Your task to perform on an android device: add a label to a message in the gmail app Image 0: 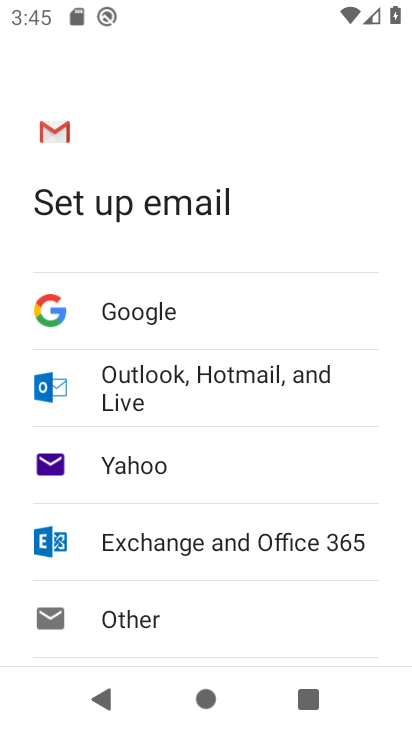
Step 0: press home button
Your task to perform on an android device: add a label to a message in the gmail app Image 1: 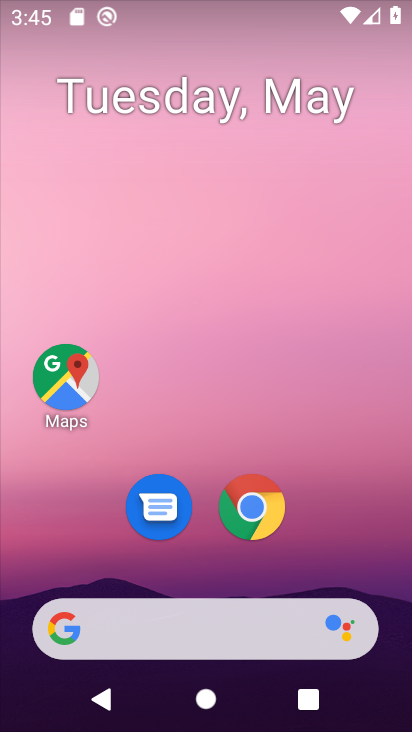
Step 1: drag from (199, 568) to (212, 86)
Your task to perform on an android device: add a label to a message in the gmail app Image 2: 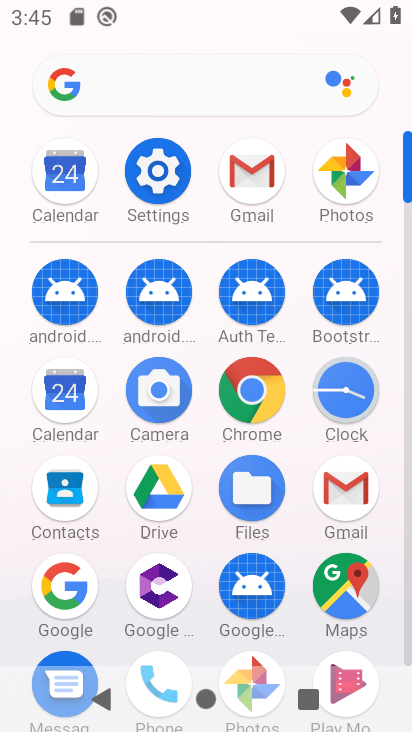
Step 2: click (241, 179)
Your task to perform on an android device: add a label to a message in the gmail app Image 3: 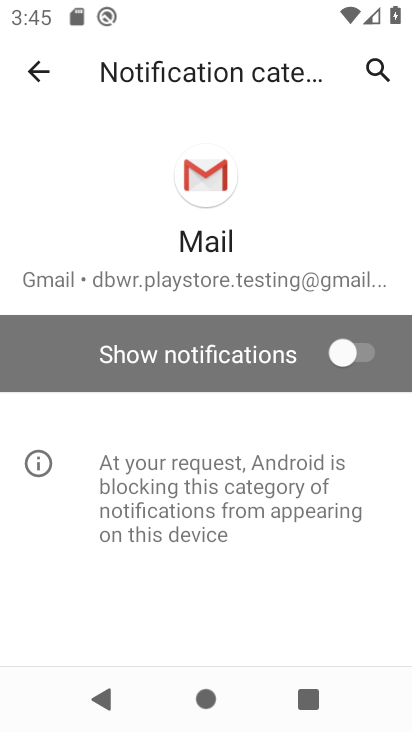
Step 3: click (42, 68)
Your task to perform on an android device: add a label to a message in the gmail app Image 4: 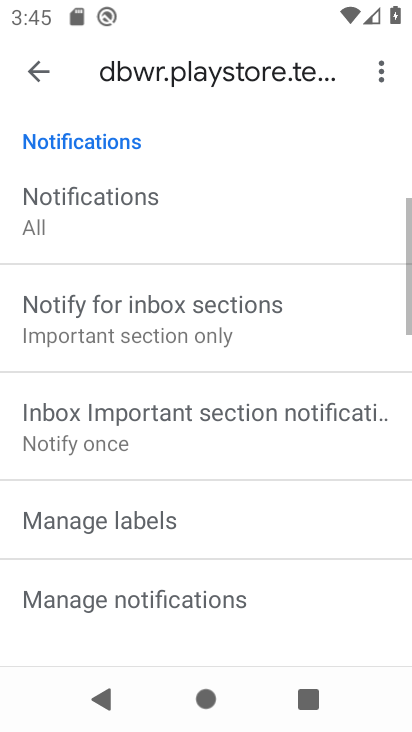
Step 4: click (42, 68)
Your task to perform on an android device: add a label to a message in the gmail app Image 5: 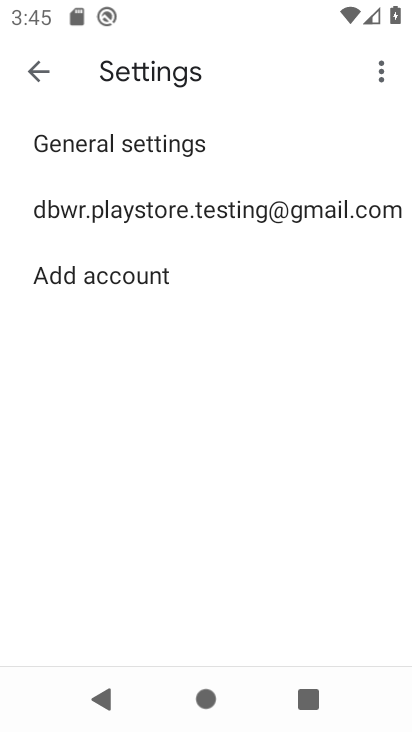
Step 5: click (42, 68)
Your task to perform on an android device: add a label to a message in the gmail app Image 6: 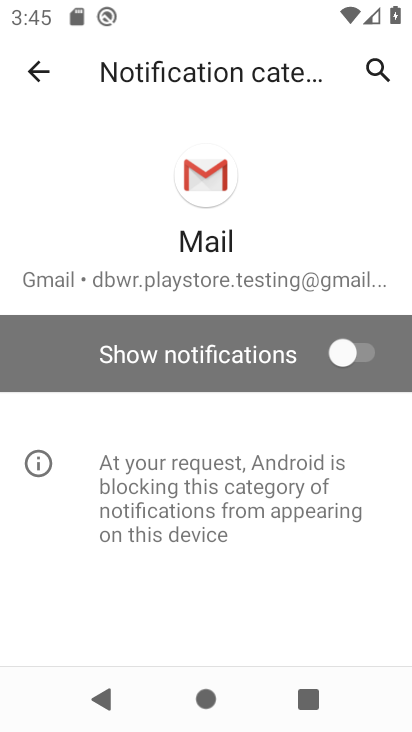
Step 6: click (44, 68)
Your task to perform on an android device: add a label to a message in the gmail app Image 7: 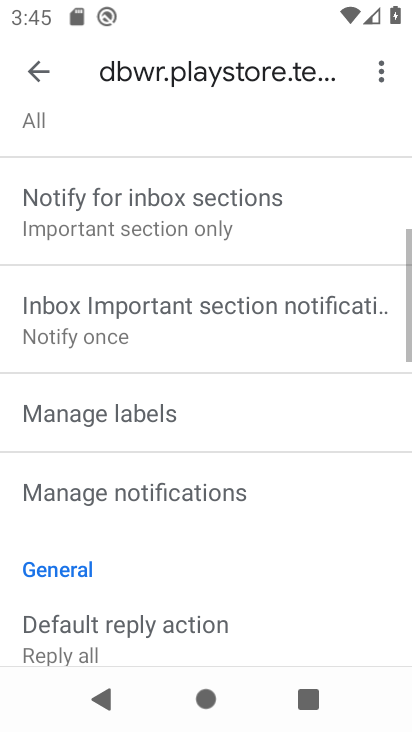
Step 7: click (44, 68)
Your task to perform on an android device: add a label to a message in the gmail app Image 8: 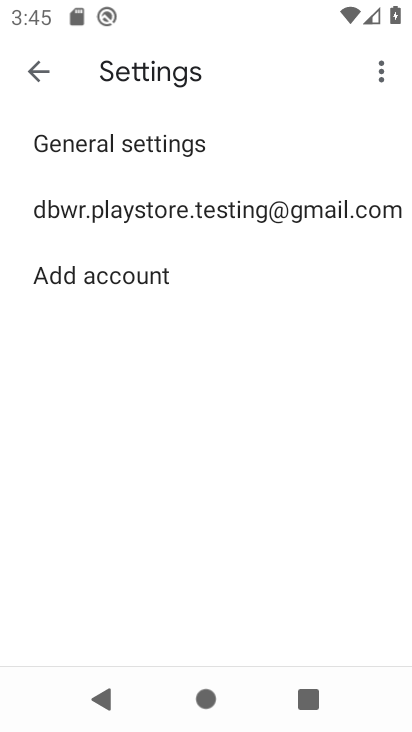
Step 8: click (43, 78)
Your task to perform on an android device: add a label to a message in the gmail app Image 9: 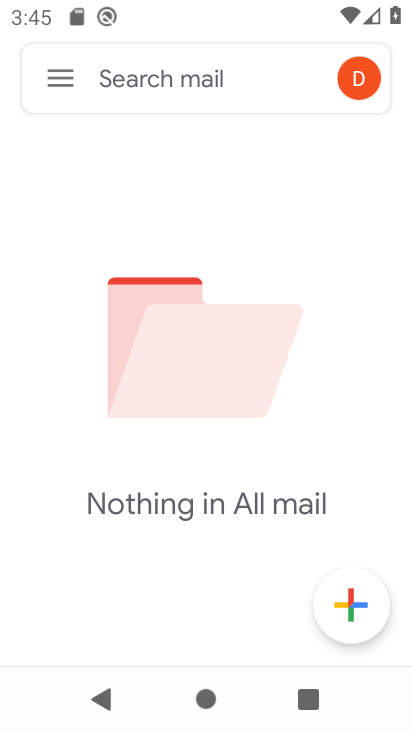
Step 9: task complete